Your task to perform on an android device: Go to battery settings Image 0: 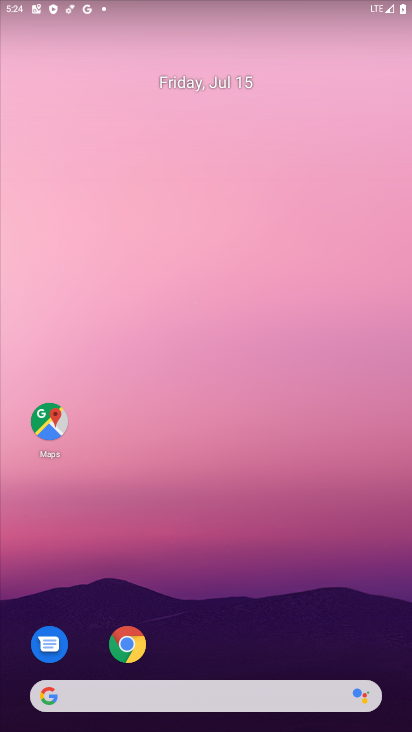
Step 0: drag from (233, 638) to (166, 225)
Your task to perform on an android device: Go to battery settings Image 1: 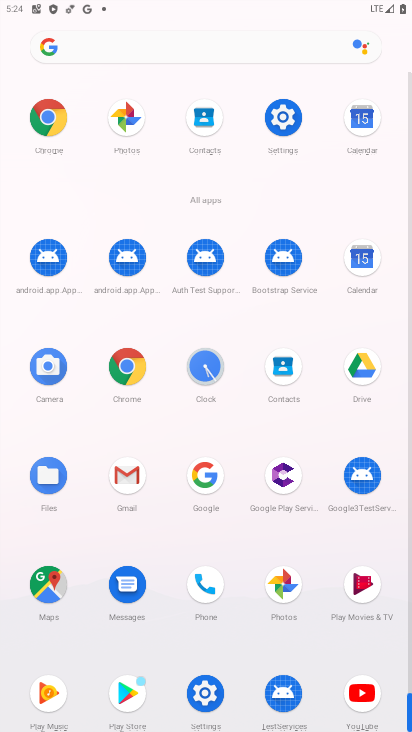
Step 1: click (287, 106)
Your task to perform on an android device: Go to battery settings Image 2: 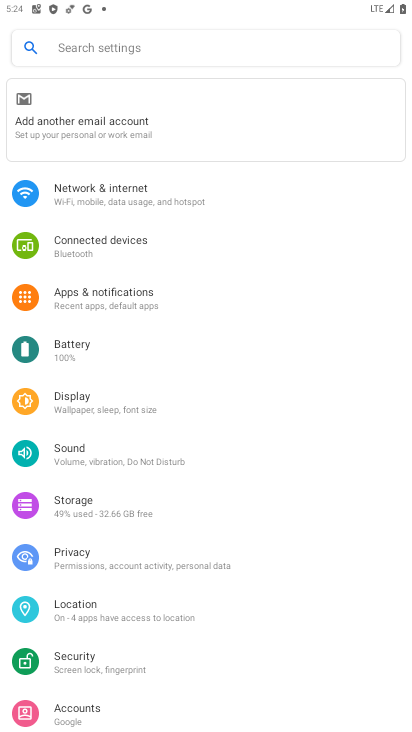
Step 2: click (69, 343)
Your task to perform on an android device: Go to battery settings Image 3: 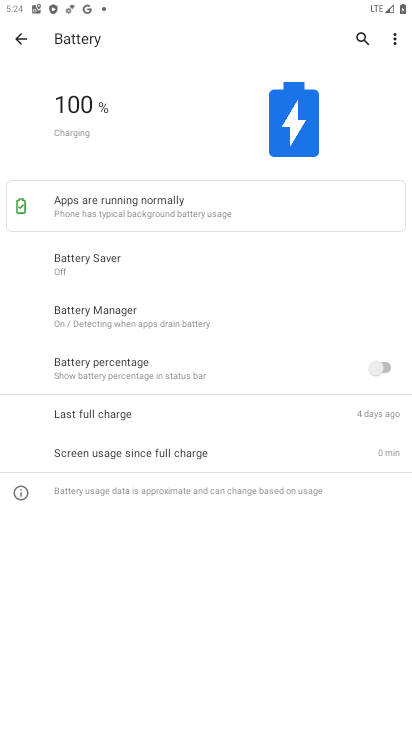
Step 3: task complete